Your task to perform on an android device: turn smart compose on in the gmail app Image 0: 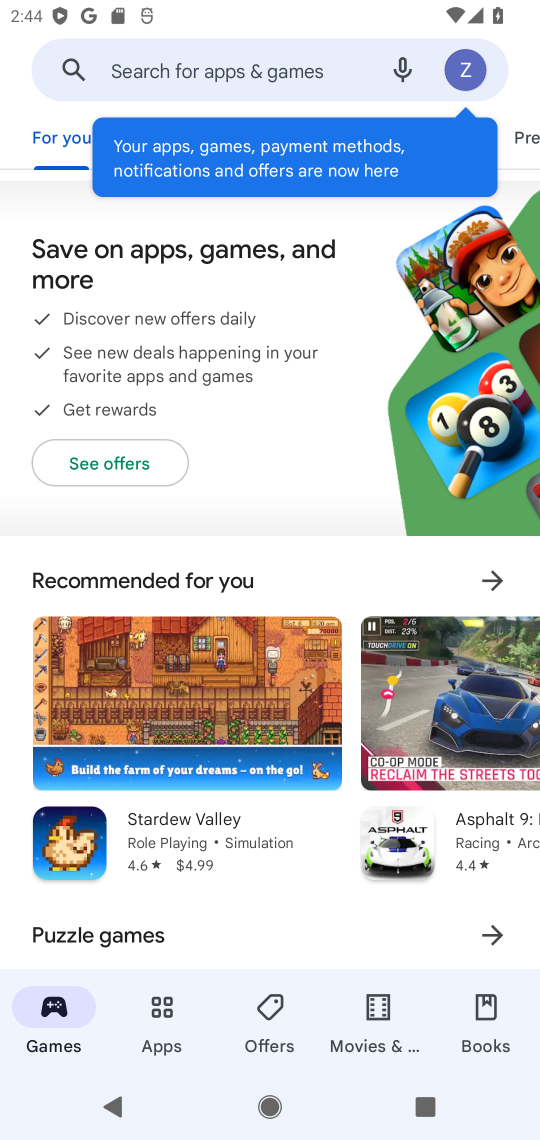
Step 0: press home button
Your task to perform on an android device: turn smart compose on in the gmail app Image 1: 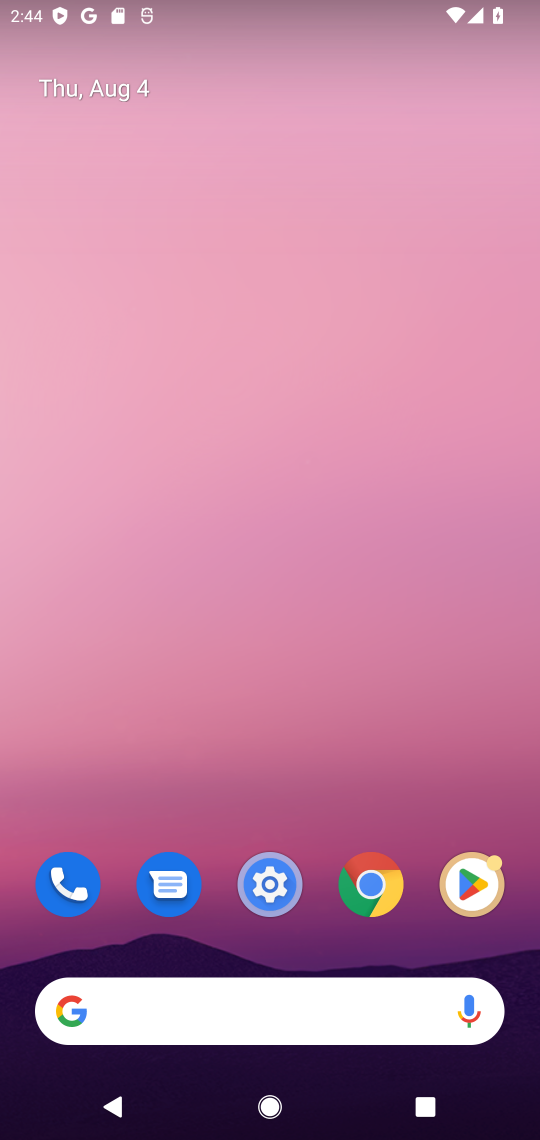
Step 1: drag from (238, 913) to (477, 202)
Your task to perform on an android device: turn smart compose on in the gmail app Image 2: 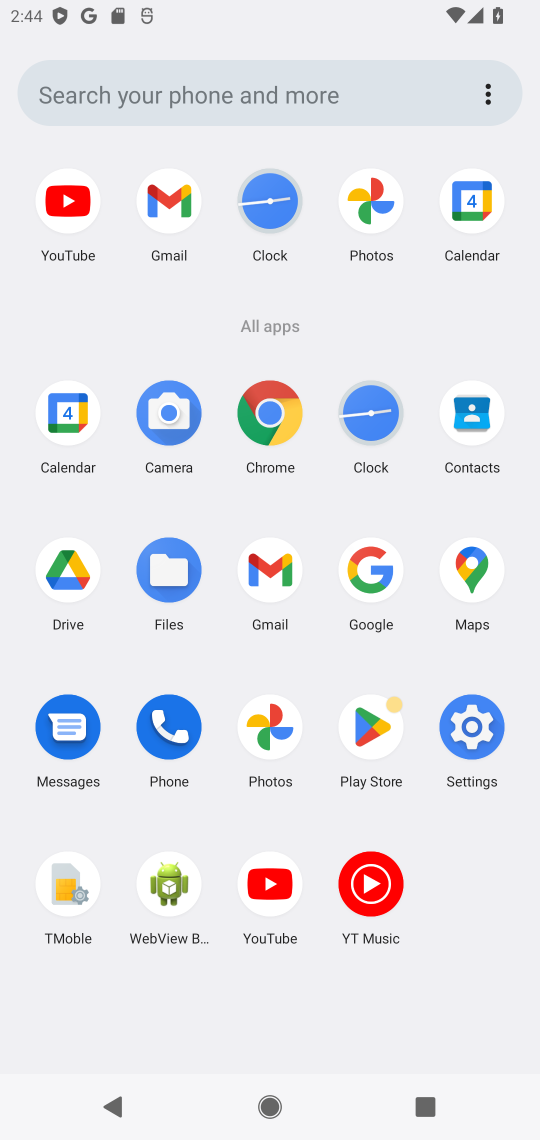
Step 2: click (219, 573)
Your task to perform on an android device: turn smart compose on in the gmail app Image 3: 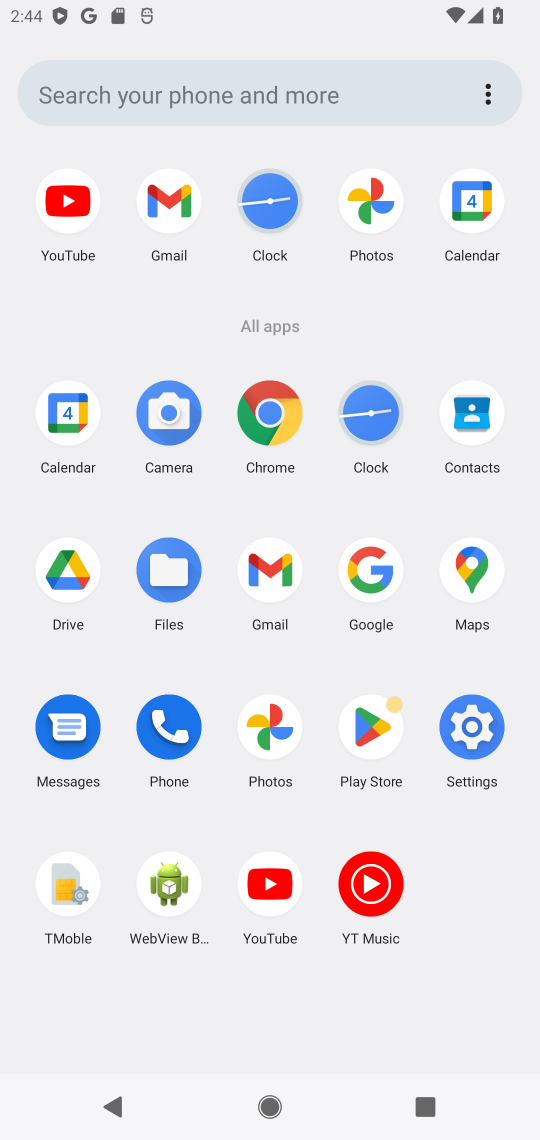
Step 3: click (240, 570)
Your task to perform on an android device: turn smart compose on in the gmail app Image 4: 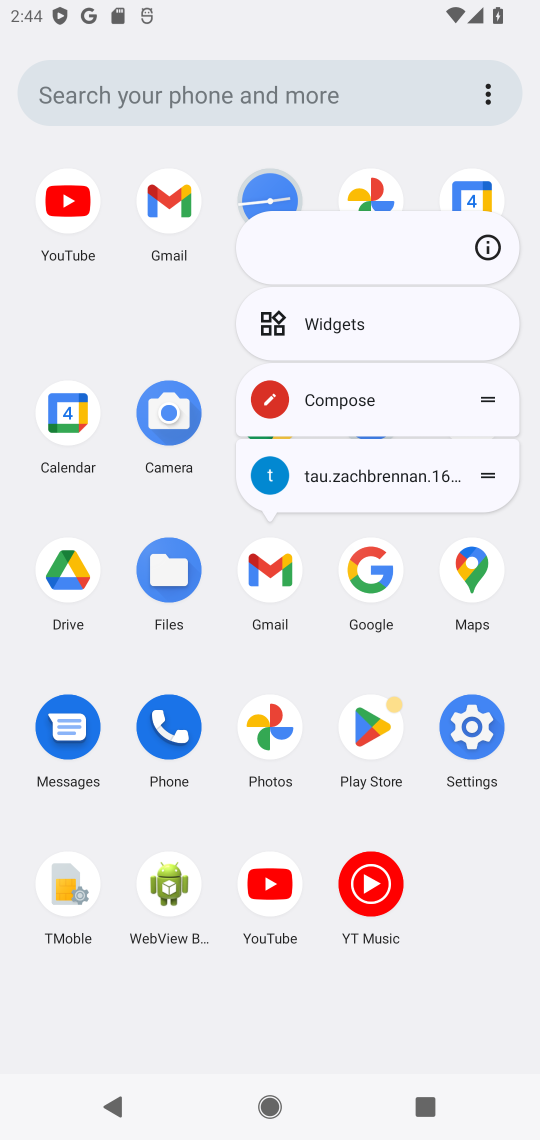
Step 4: click (487, 241)
Your task to perform on an android device: turn smart compose on in the gmail app Image 5: 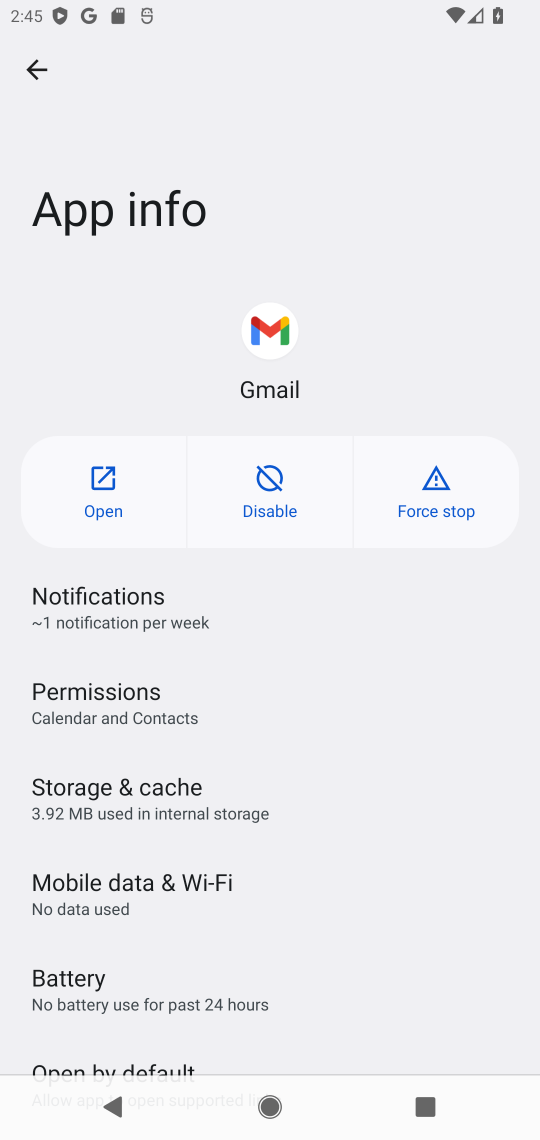
Step 5: click (91, 485)
Your task to perform on an android device: turn smart compose on in the gmail app Image 6: 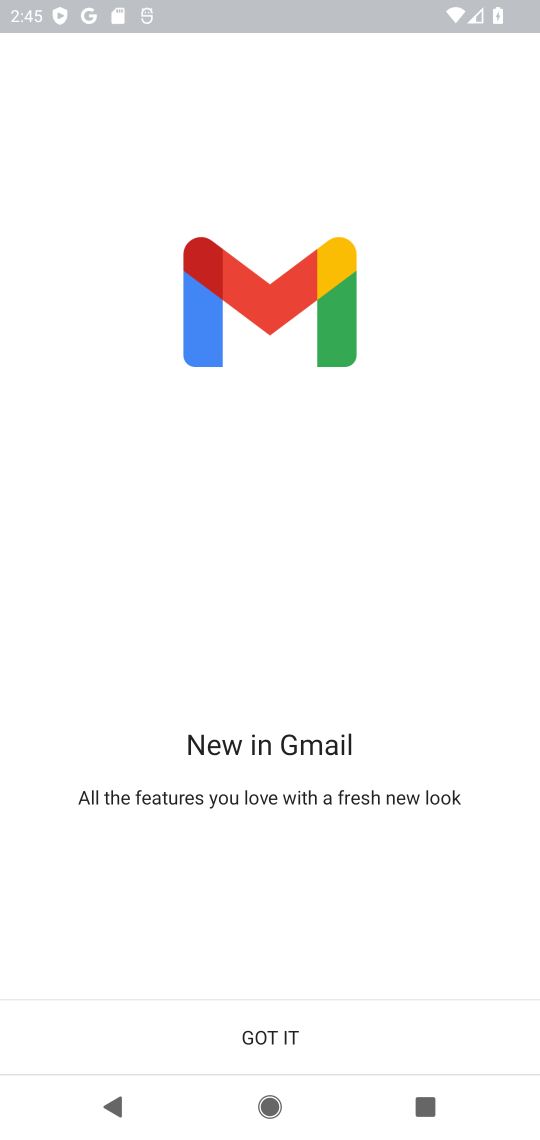
Step 6: click (264, 1017)
Your task to perform on an android device: turn smart compose on in the gmail app Image 7: 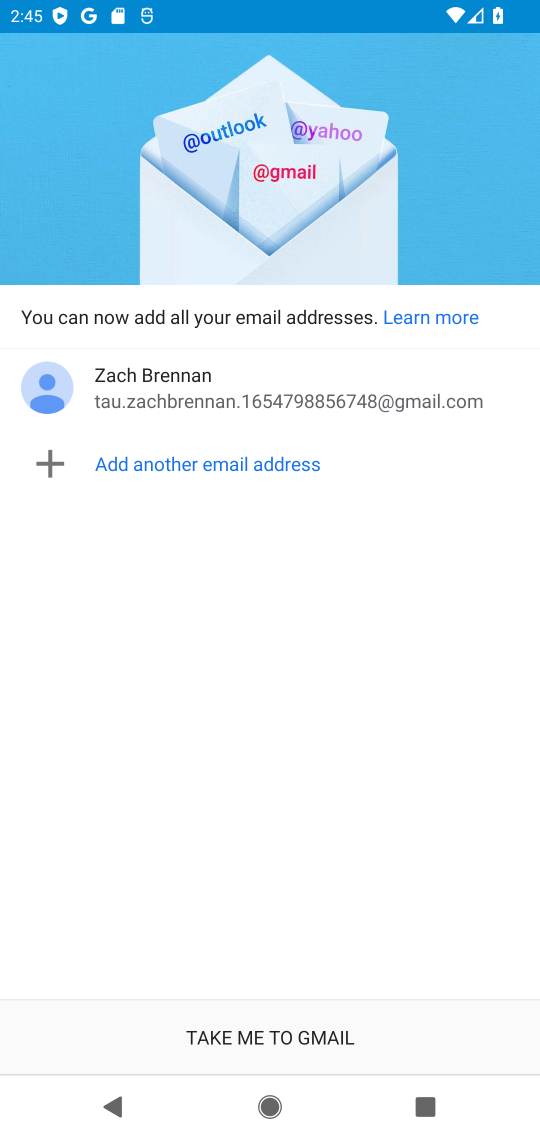
Step 7: click (314, 1019)
Your task to perform on an android device: turn smart compose on in the gmail app Image 8: 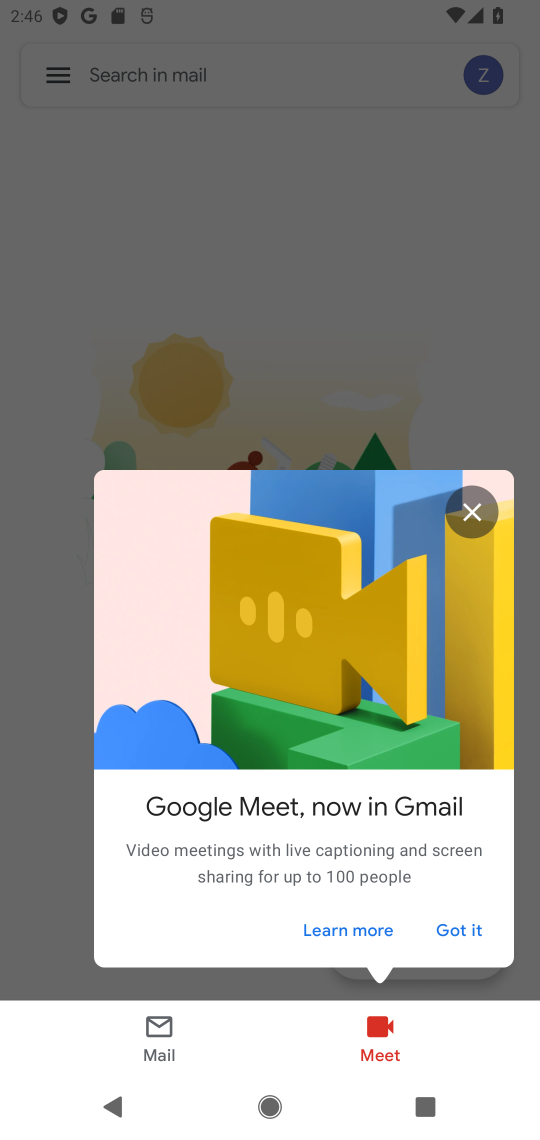
Step 8: click (470, 518)
Your task to perform on an android device: turn smart compose on in the gmail app Image 9: 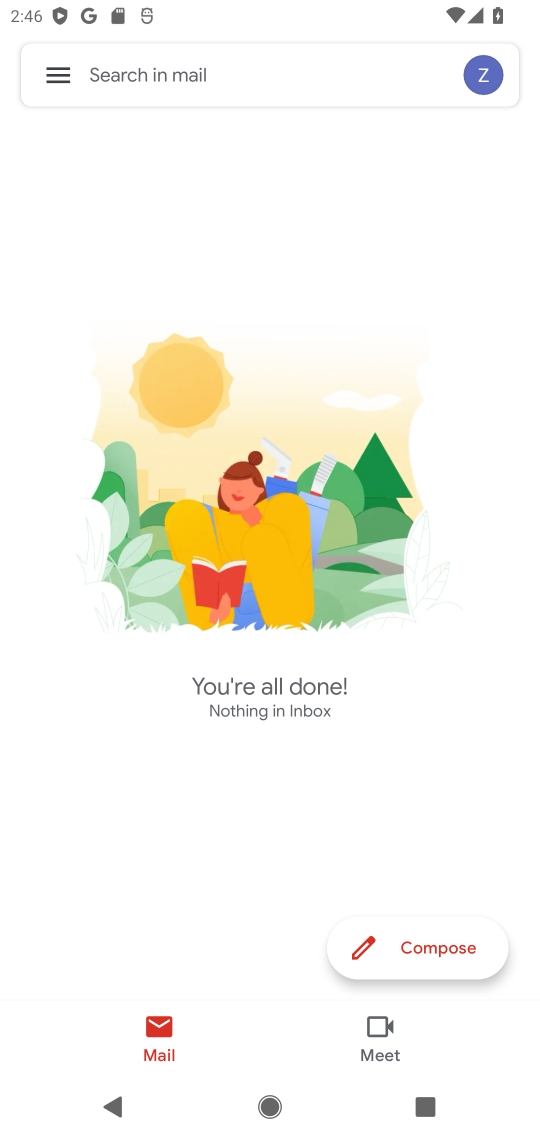
Step 9: click (57, 73)
Your task to perform on an android device: turn smart compose on in the gmail app Image 10: 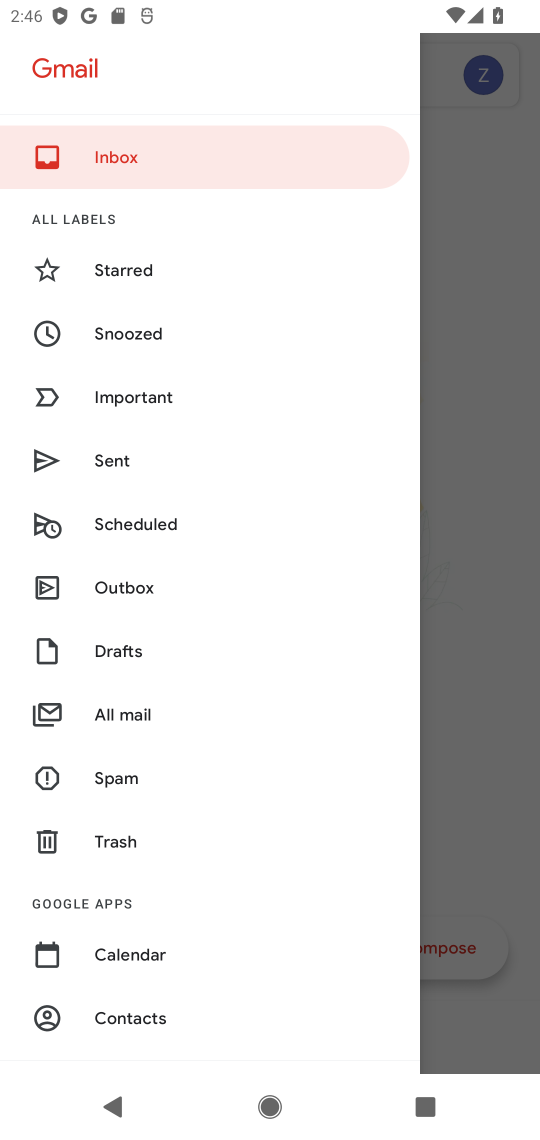
Step 10: drag from (124, 741) to (312, 65)
Your task to perform on an android device: turn smart compose on in the gmail app Image 11: 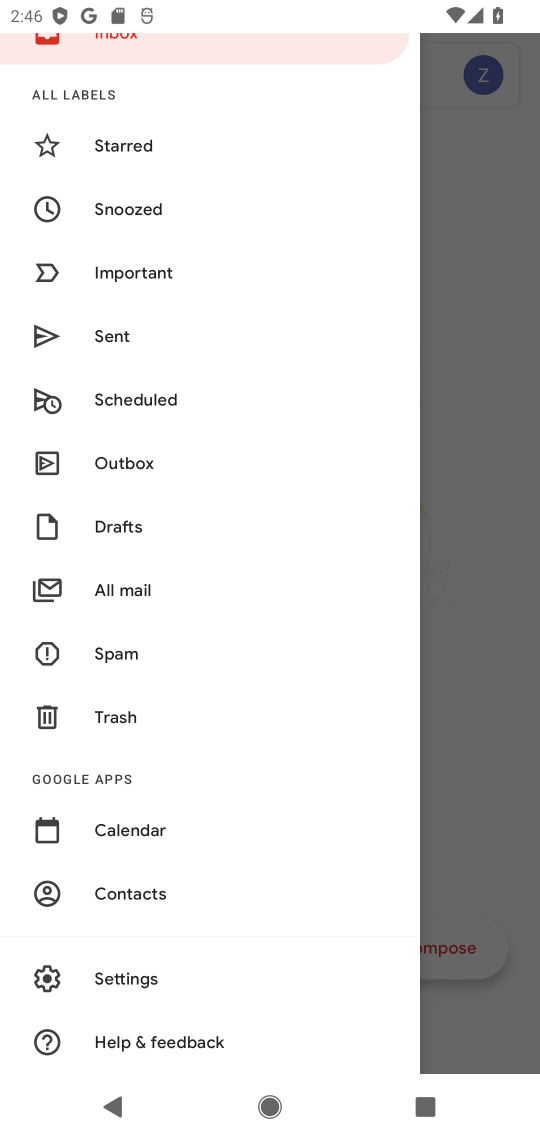
Step 11: click (128, 975)
Your task to perform on an android device: turn smart compose on in the gmail app Image 12: 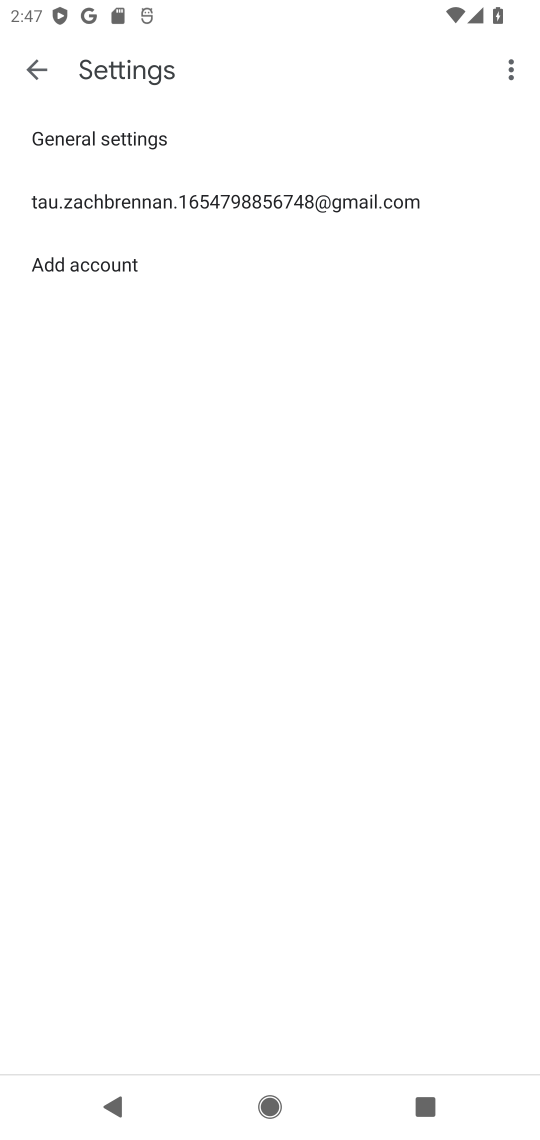
Step 12: drag from (277, 444) to (397, 159)
Your task to perform on an android device: turn smart compose on in the gmail app Image 13: 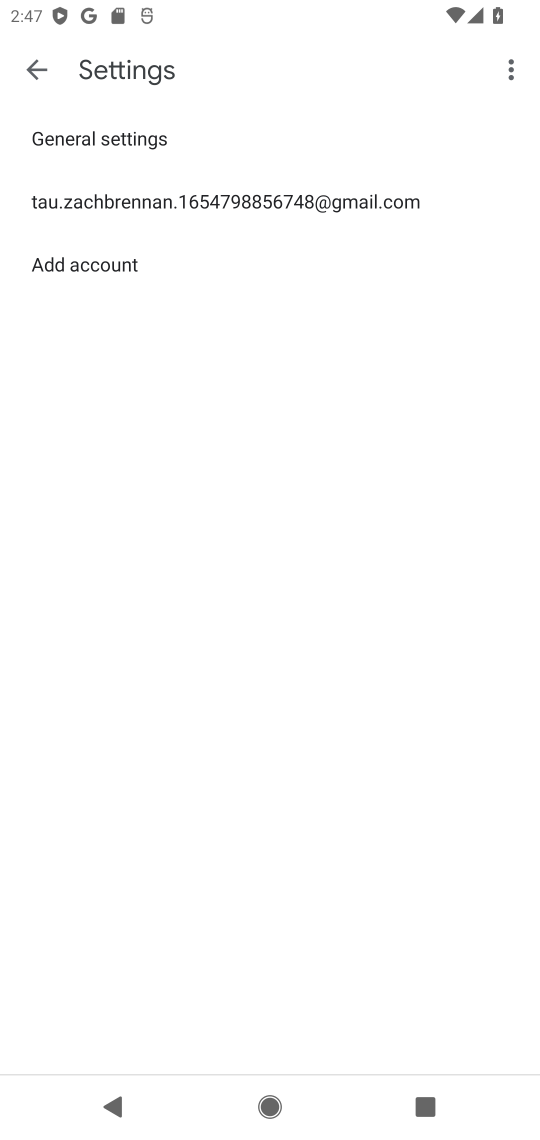
Step 13: click (254, 204)
Your task to perform on an android device: turn smart compose on in the gmail app Image 14: 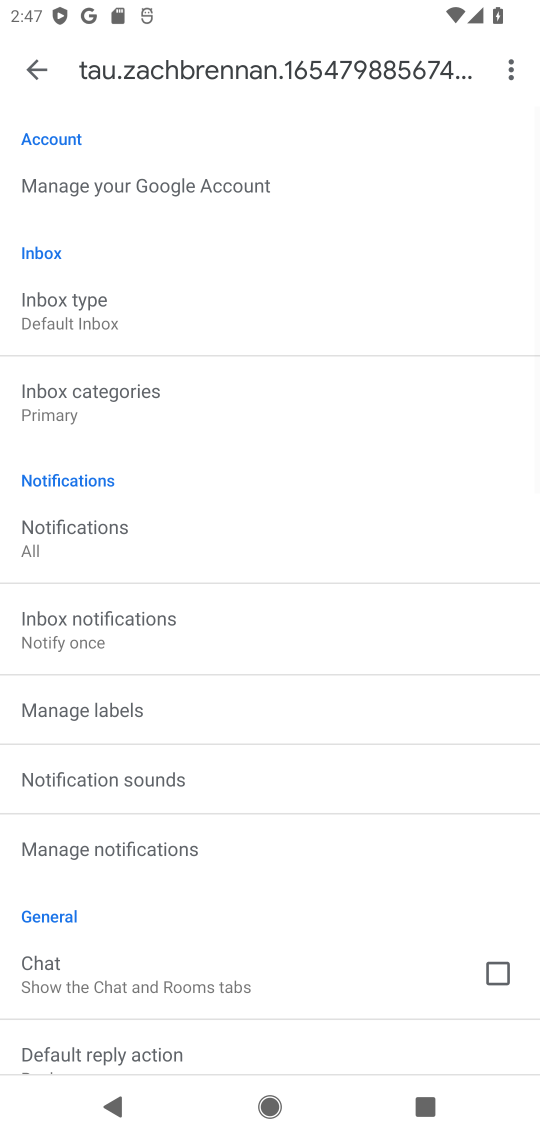
Step 14: task complete